Your task to perform on an android device: change notification settings in the gmail app Image 0: 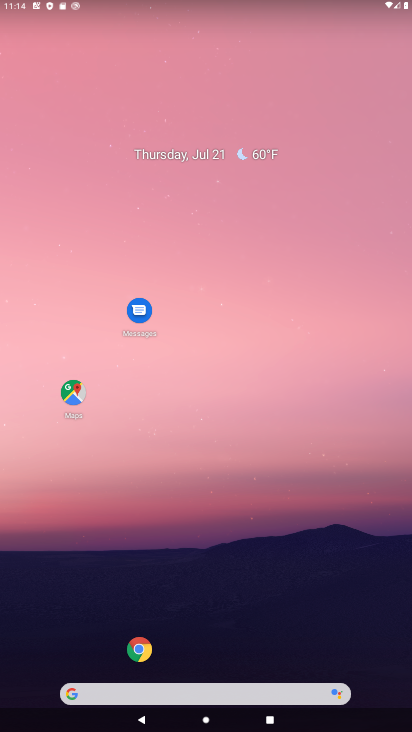
Step 0: drag from (62, 680) to (177, 374)
Your task to perform on an android device: change notification settings in the gmail app Image 1: 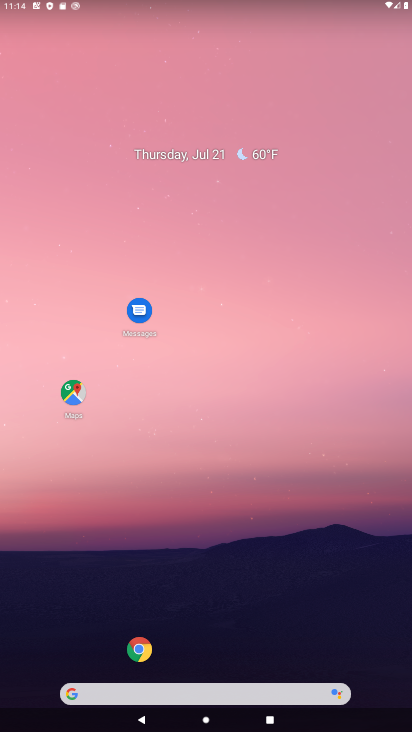
Step 1: drag from (21, 690) to (196, 86)
Your task to perform on an android device: change notification settings in the gmail app Image 2: 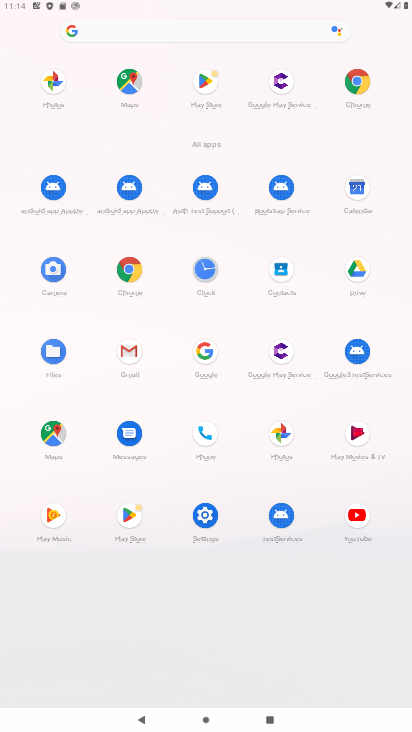
Step 2: click (124, 361)
Your task to perform on an android device: change notification settings in the gmail app Image 3: 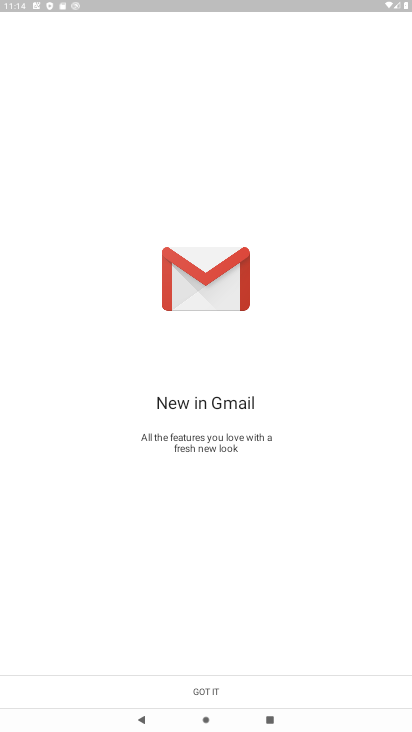
Step 3: click (188, 683)
Your task to perform on an android device: change notification settings in the gmail app Image 4: 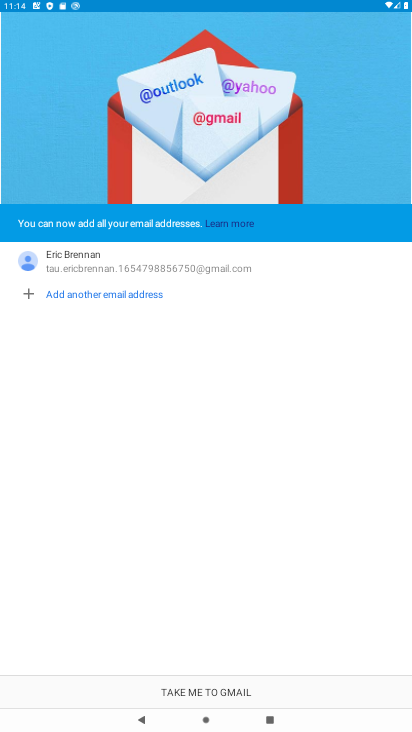
Step 4: click (203, 694)
Your task to perform on an android device: change notification settings in the gmail app Image 5: 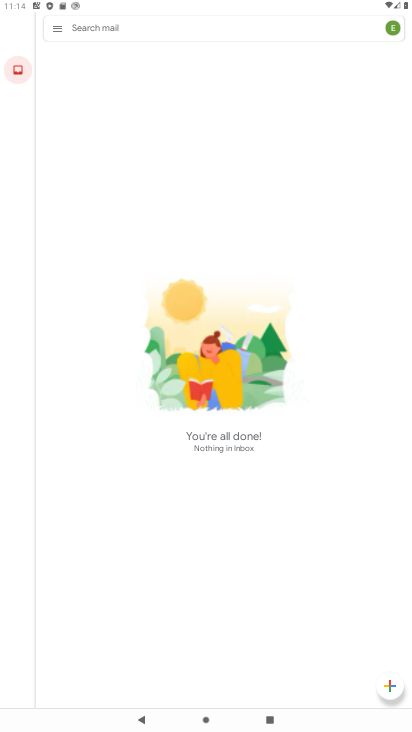
Step 5: click (55, 36)
Your task to perform on an android device: change notification settings in the gmail app Image 6: 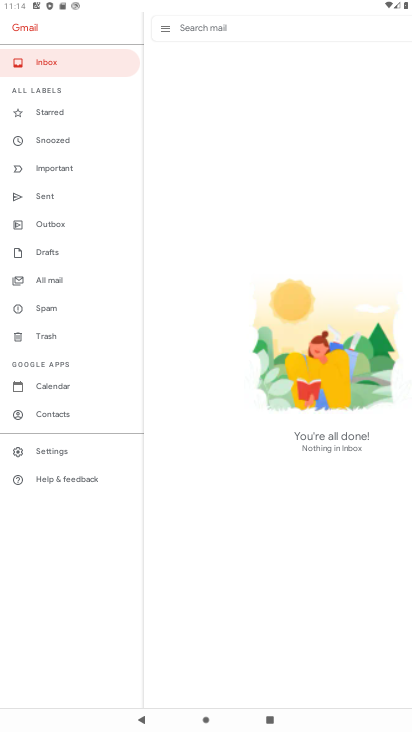
Step 6: click (62, 459)
Your task to perform on an android device: change notification settings in the gmail app Image 7: 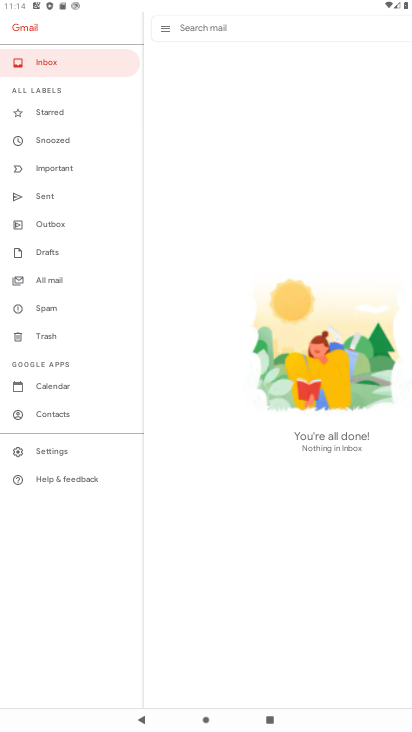
Step 7: click (62, 454)
Your task to perform on an android device: change notification settings in the gmail app Image 8: 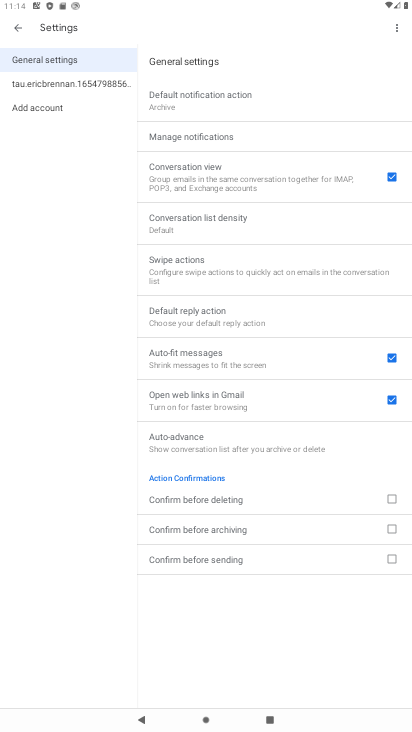
Step 8: click (167, 132)
Your task to perform on an android device: change notification settings in the gmail app Image 9: 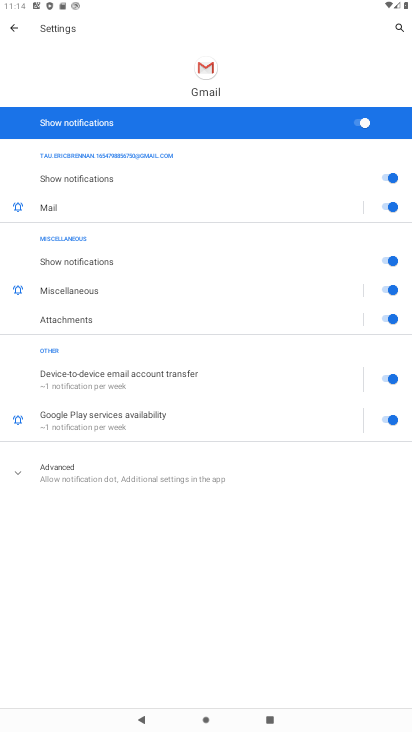
Step 9: click (364, 128)
Your task to perform on an android device: change notification settings in the gmail app Image 10: 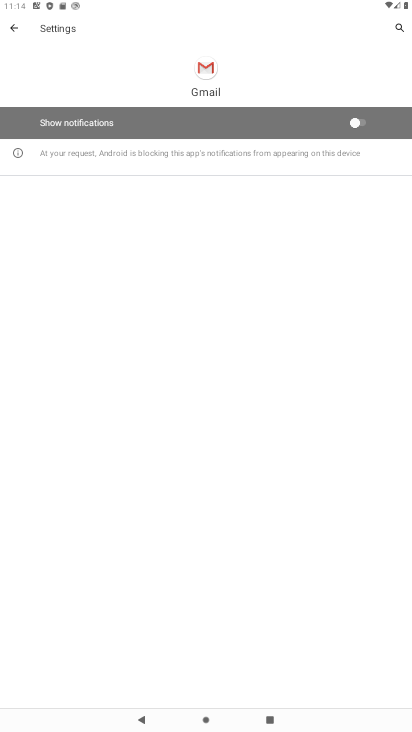
Step 10: task complete